Your task to perform on an android device: change the clock display to show seconds Image 0: 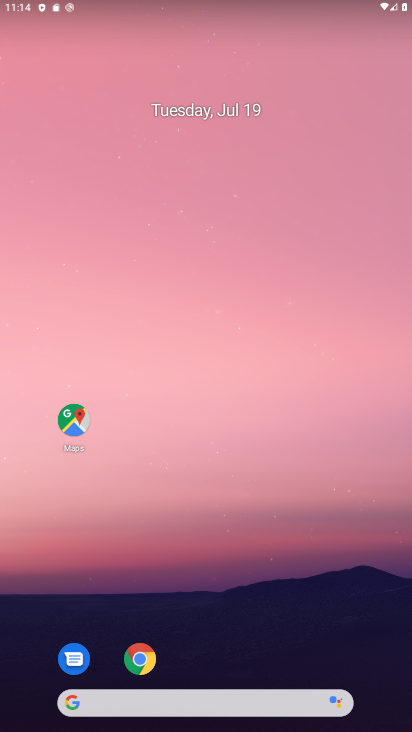
Step 0: press home button
Your task to perform on an android device: change the clock display to show seconds Image 1: 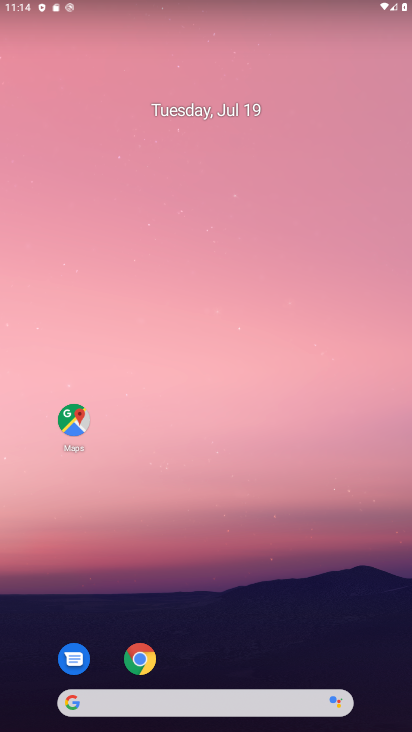
Step 1: drag from (211, 668) to (223, 3)
Your task to perform on an android device: change the clock display to show seconds Image 2: 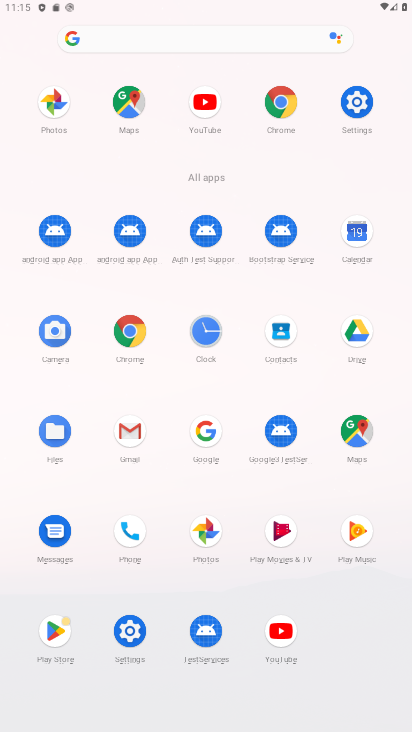
Step 2: click (206, 329)
Your task to perform on an android device: change the clock display to show seconds Image 3: 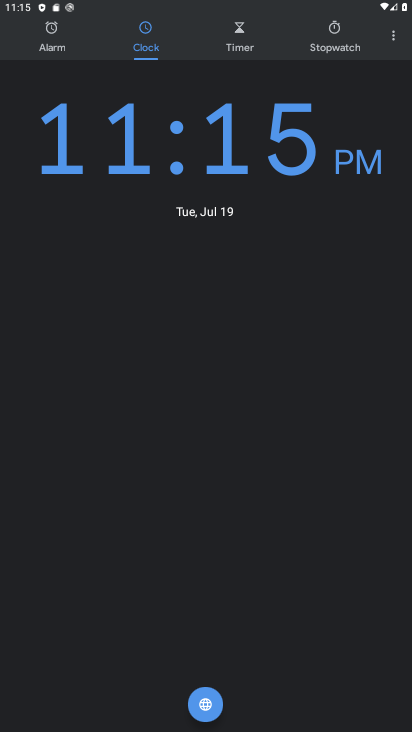
Step 3: click (389, 38)
Your task to perform on an android device: change the clock display to show seconds Image 4: 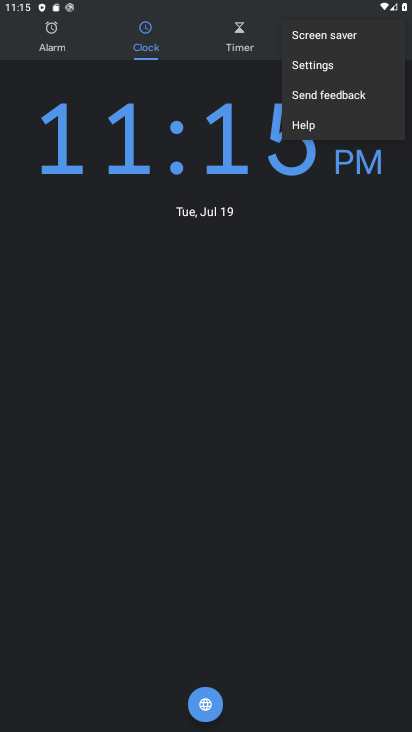
Step 4: click (331, 62)
Your task to perform on an android device: change the clock display to show seconds Image 5: 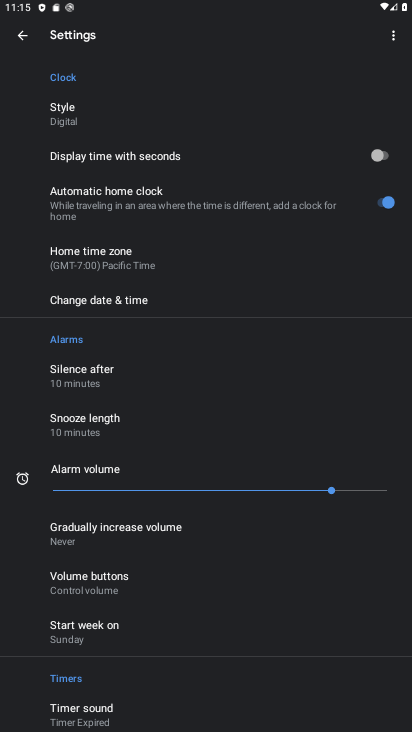
Step 5: click (91, 110)
Your task to perform on an android device: change the clock display to show seconds Image 6: 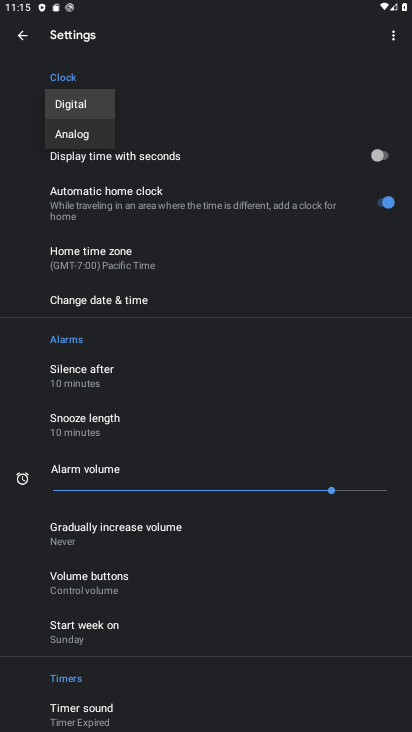
Step 6: click (380, 151)
Your task to perform on an android device: change the clock display to show seconds Image 7: 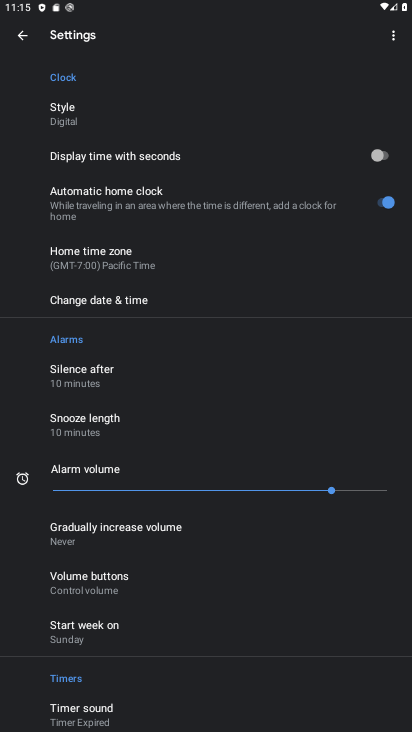
Step 7: click (388, 154)
Your task to perform on an android device: change the clock display to show seconds Image 8: 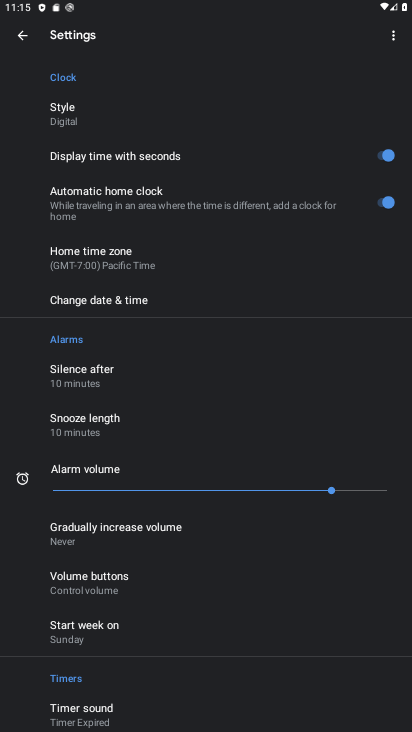
Step 8: task complete